Your task to perform on an android device: What's on my calendar tomorrow? Image 0: 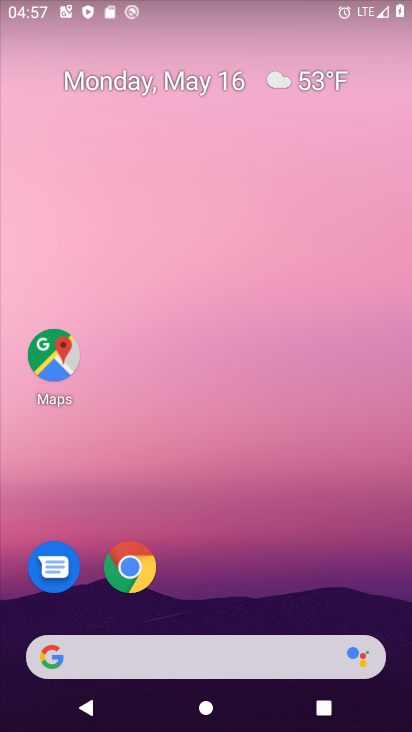
Step 0: drag from (183, 653) to (164, 66)
Your task to perform on an android device: What's on my calendar tomorrow? Image 1: 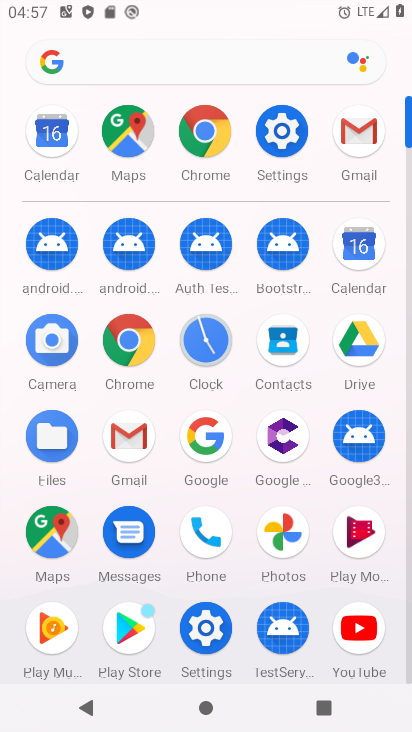
Step 1: click (358, 239)
Your task to perform on an android device: What's on my calendar tomorrow? Image 2: 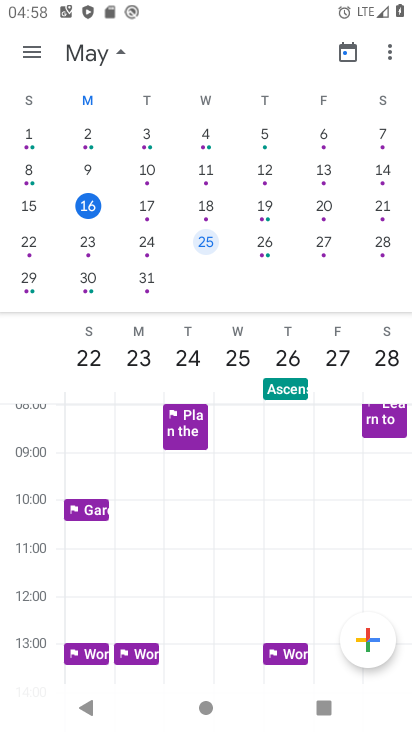
Step 2: click (150, 206)
Your task to perform on an android device: What's on my calendar tomorrow? Image 3: 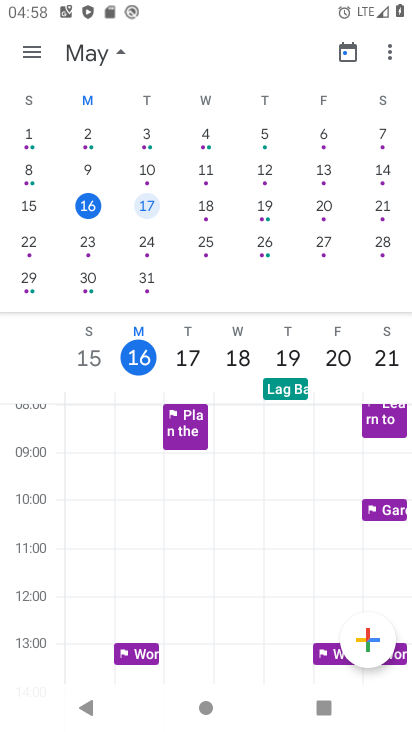
Step 3: task complete